Your task to perform on an android device: toggle sleep mode Image 0: 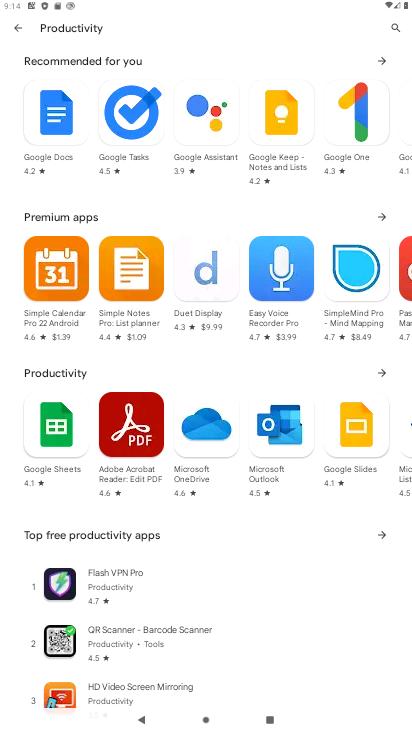
Step 0: press home button
Your task to perform on an android device: toggle sleep mode Image 1: 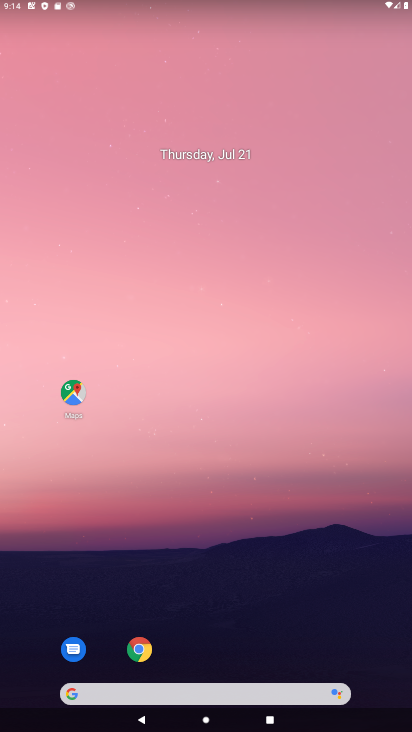
Step 1: drag from (253, 592) to (271, 149)
Your task to perform on an android device: toggle sleep mode Image 2: 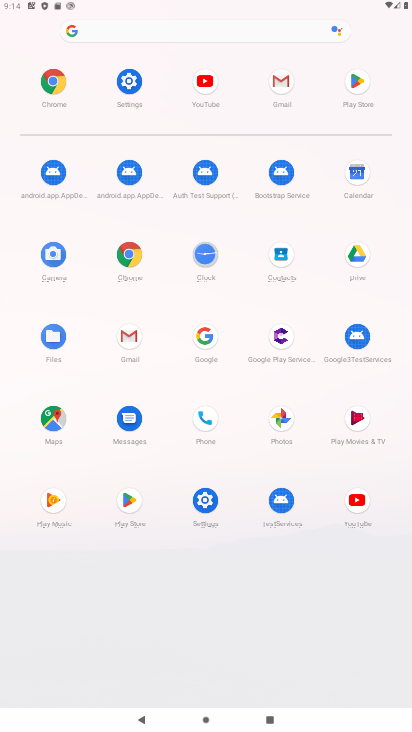
Step 2: click (129, 98)
Your task to perform on an android device: toggle sleep mode Image 3: 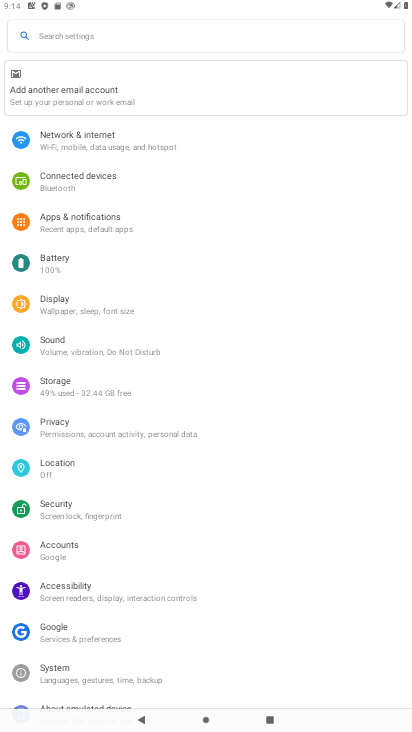
Step 3: click (152, 32)
Your task to perform on an android device: toggle sleep mode Image 4: 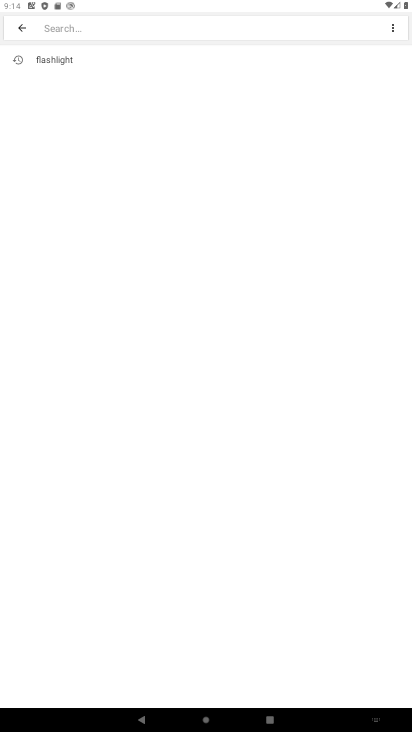
Step 4: type "sleep mode"
Your task to perform on an android device: toggle sleep mode Image 5: 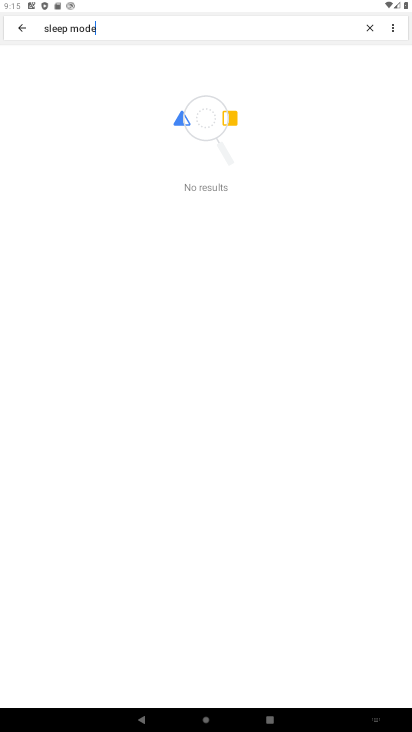
Step 5: task complete